Your task to perform on an android device: turn off sleep mode Image 0: 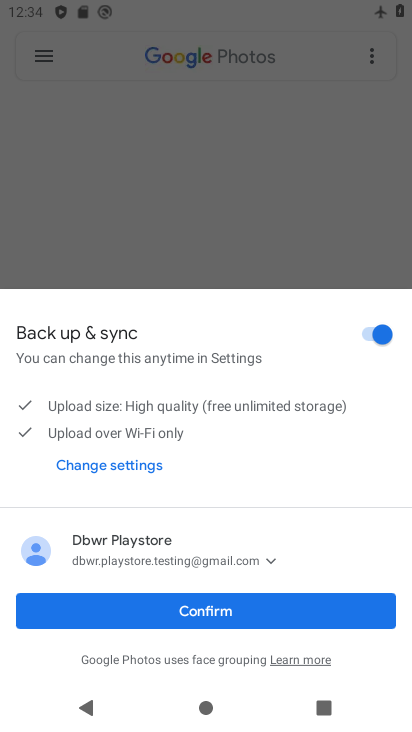
Step 0: press home button
Your task to perform on an android device: turn off sleep mode Image 1: 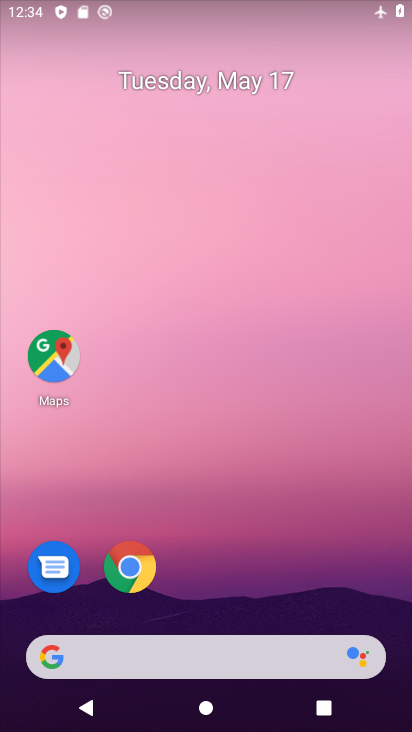
Step 1: drag from (310, 10) to (257, 502)
Your task to perform on an android device: turn off sleep mode Image 2: 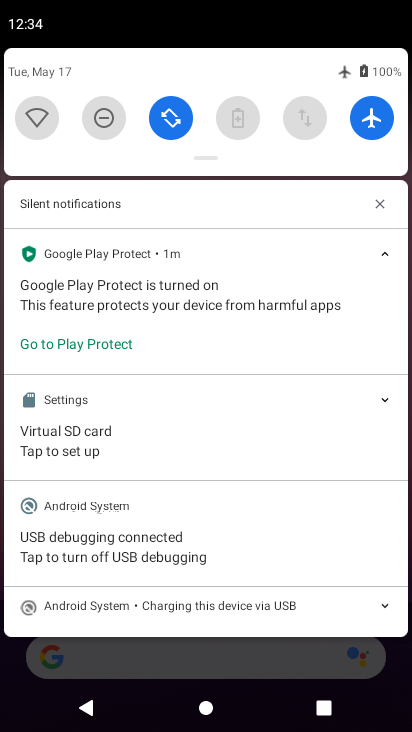
Step 2: drag from (206, 149) to (172, 615)
Your task to perform on an android device: turn off sleep mode Image 3: 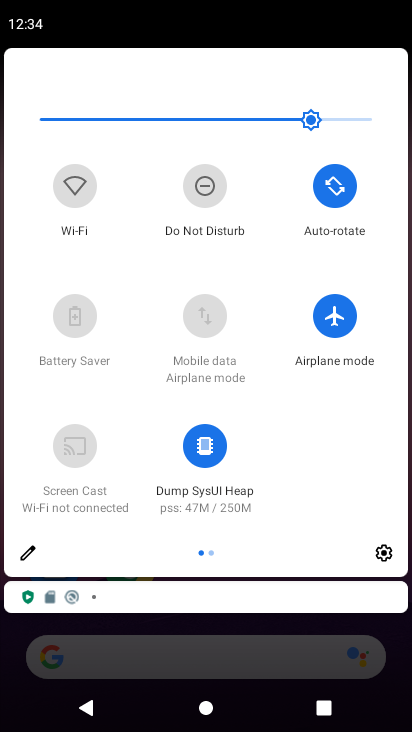
Step 3: click (26, 552)
Your task to perform on an android device: turn off sleep mode Image 4: 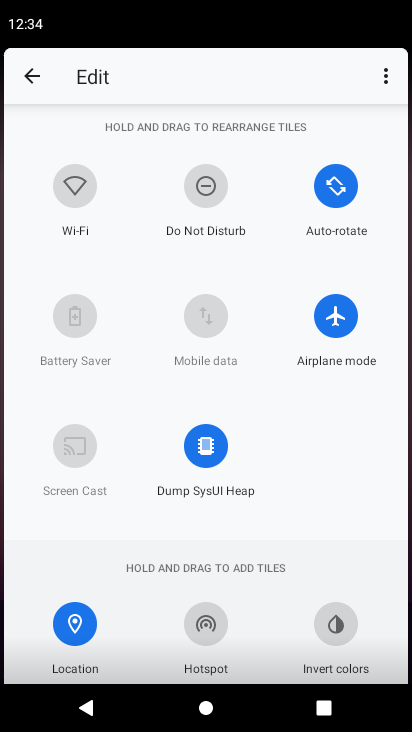
Step 4: task complete